Your task to perform on an android device: Go to Google Image 0: 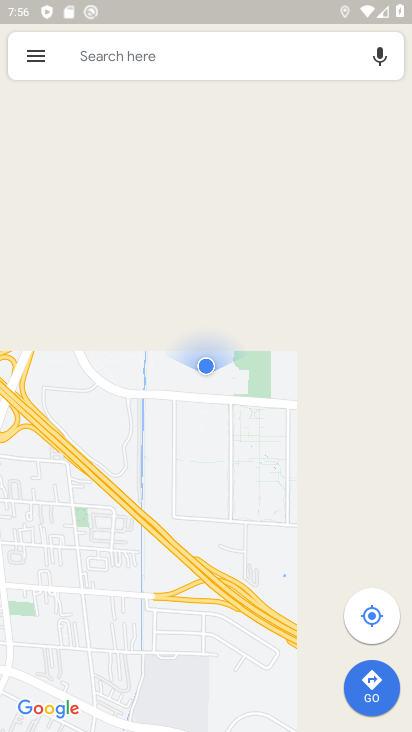
Step 0: press home button
Your task to perform on an android device: Go to Google Image 1: 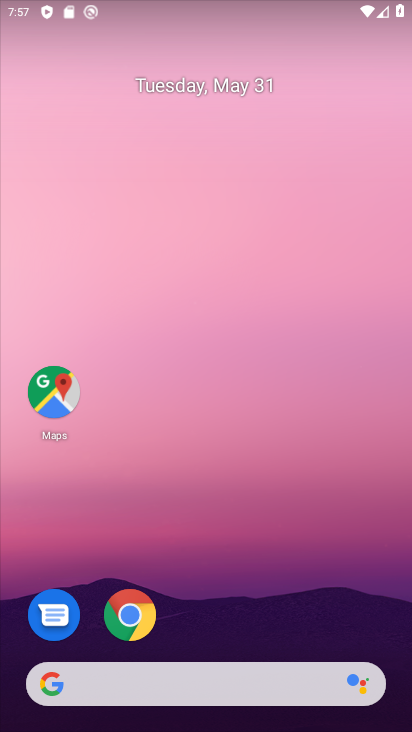
Step 1: drag from (155, 668) to (337, 51)
Your task to perform on an android device: Go to Google Image 2: 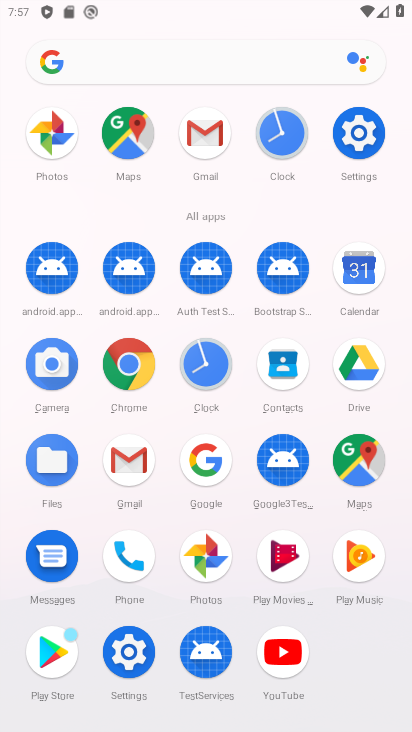
Step 2: click (200, 465)
Your task to perform on an android device: Go to Google Image 3: 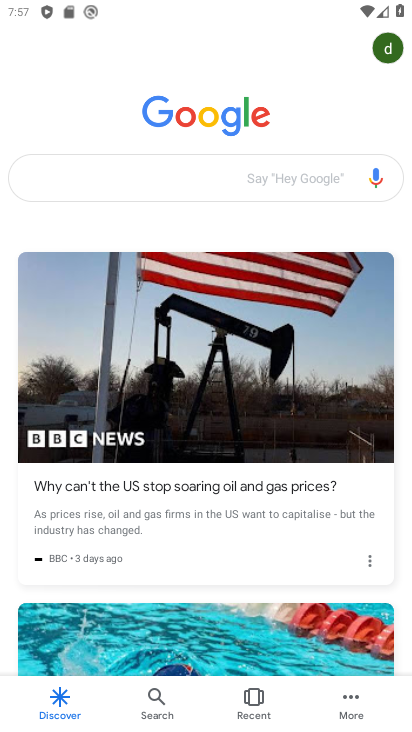
Step 3: task complete